Your task to perform on an android device: Go to Amazon Image 0: 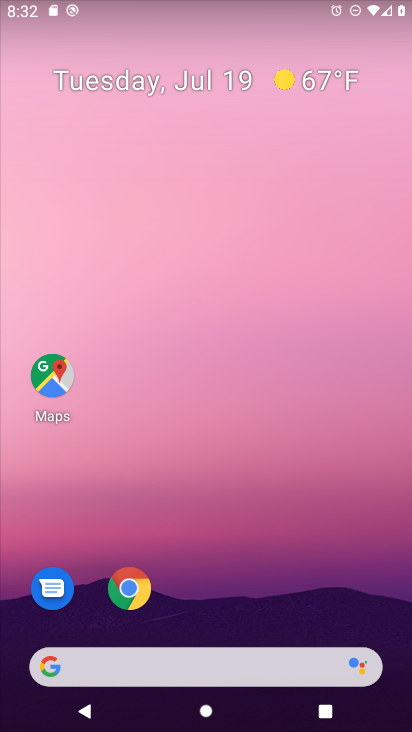
Step 0: drag from (338, 619) to (355, 100)
Your task to perform on an android device: Go to Amazon Image 1: 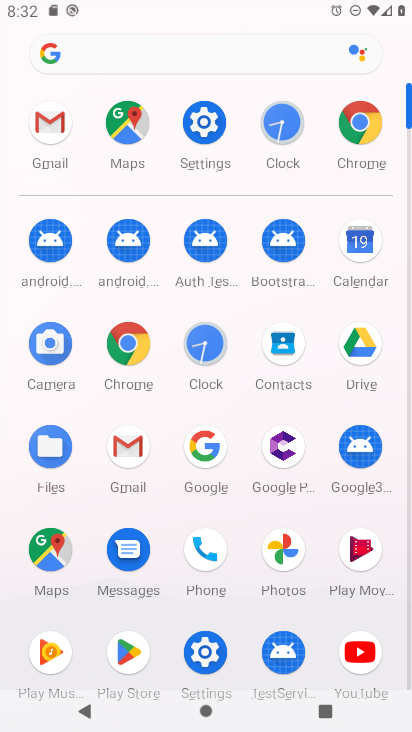
Step 1: click (138, 343)
Your task to perform on an android device: Go to Amazon Image 2: 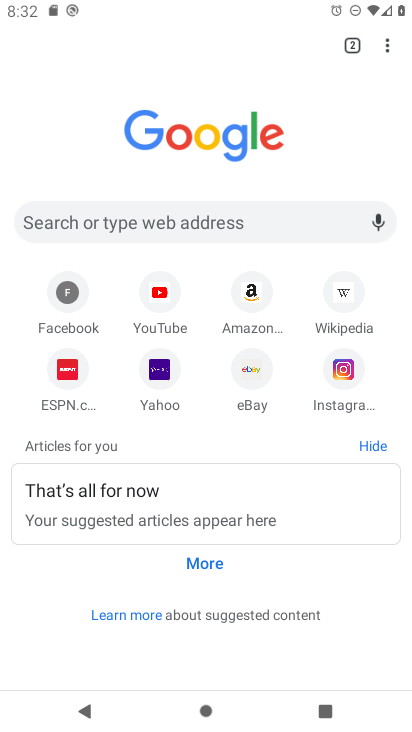
Step 2: click (225, 222)
Your task to perform on an android device: Go to Amazon Image 3: 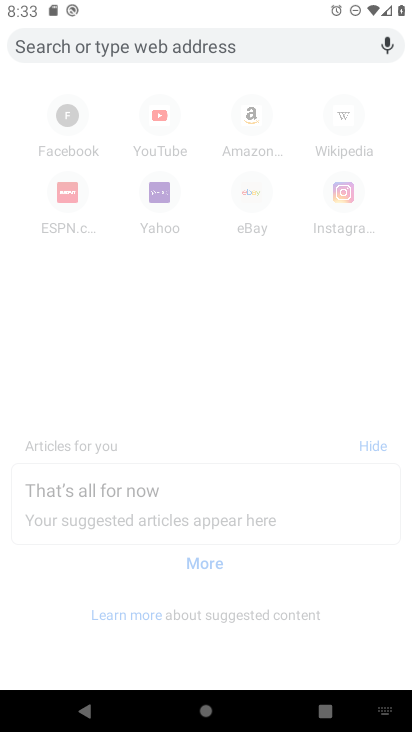
Step 3: type "amazon"
Your task to perform on an android device: Go to Amazon Image 4: 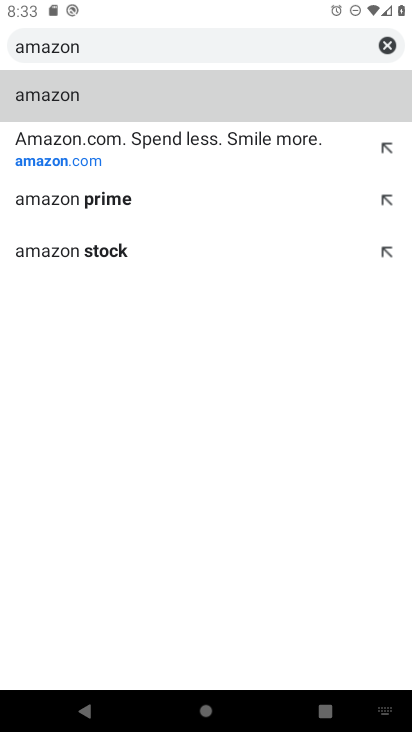
Step 4: click (188, 84)
Your task to perform on an android device: Go to Amazon Image 5: 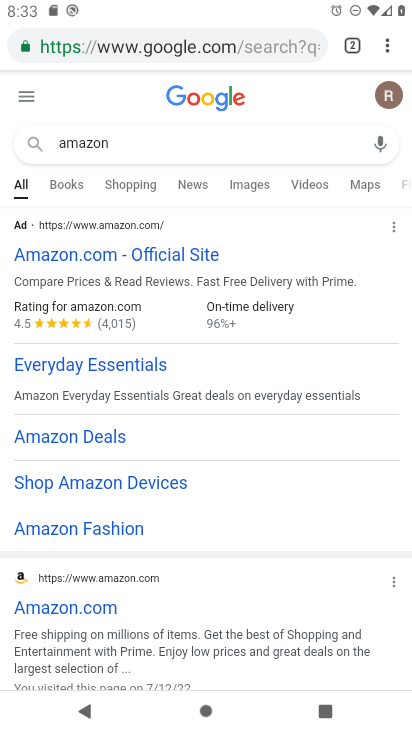
Step 5: task complete